Your task to perform on an android device: toggle pop-ups in chrome Image 0: 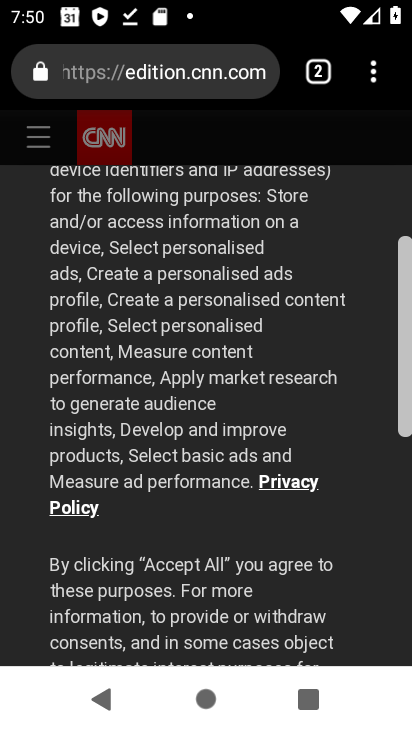
Step 0: press home button
Your task to perform on an android device: toggle pop-ups in chrome Image 1: 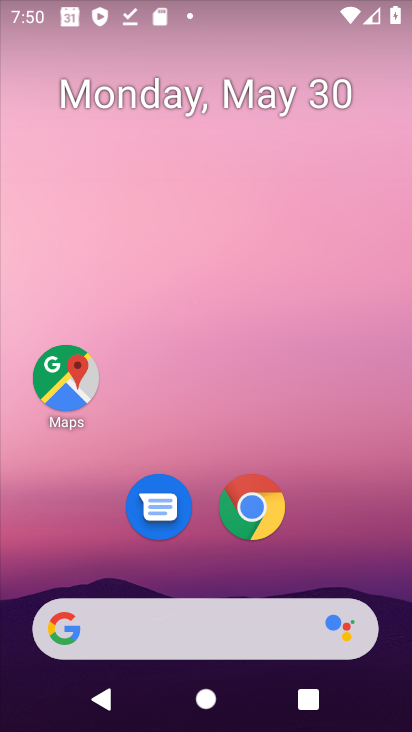
Step 1: drag from (362, 552) to (329, 176)
Your task to perform on an android device: toggle pop-ups in chrome Image 2: 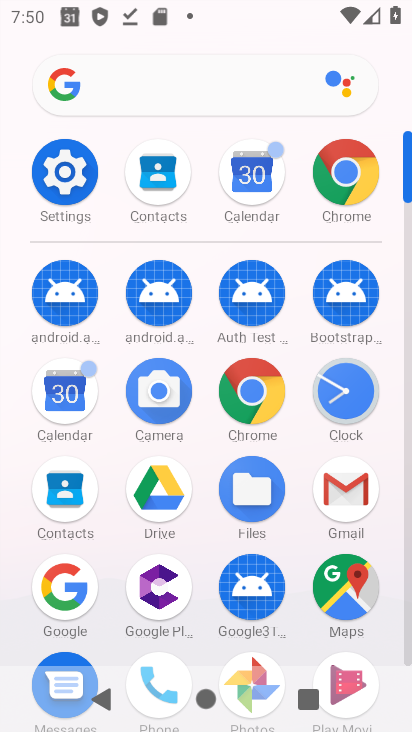
Step 2: click (241, 399)
Your task to perform on an android device: toggle pop-ups in chrome Image 3: 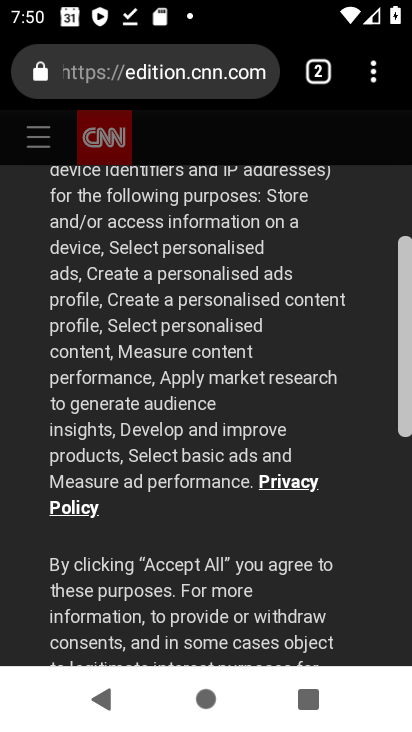
Step 3: drag from (385, 78) to (114, 497)
Your task to perform on an android device: toggle pop-ups in chrome Image 4: 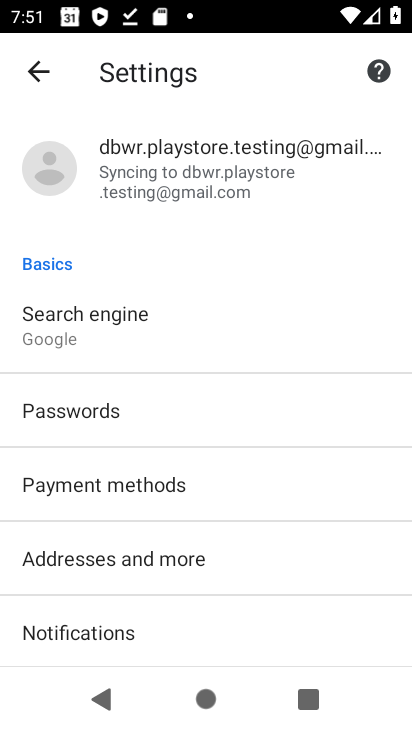
Step 4: drag from (216, 530) to (226, 235)
Your task to perform on an android device: toggle pop-ups in chrome Image 5: 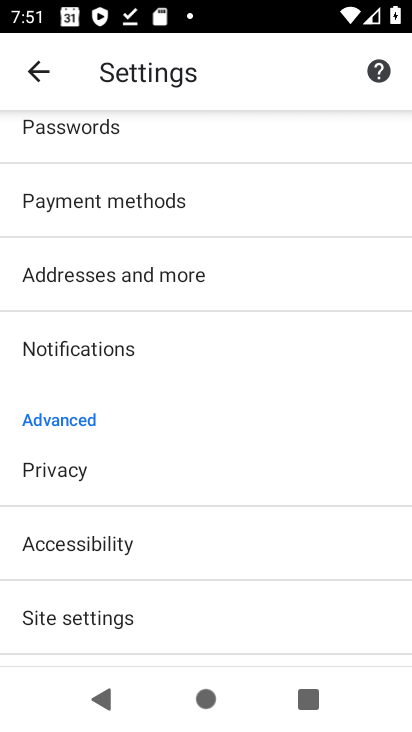
Step 5: click (109, 604)
Your task to perform on an android device: toggle pop-ups in chrome Image 6: 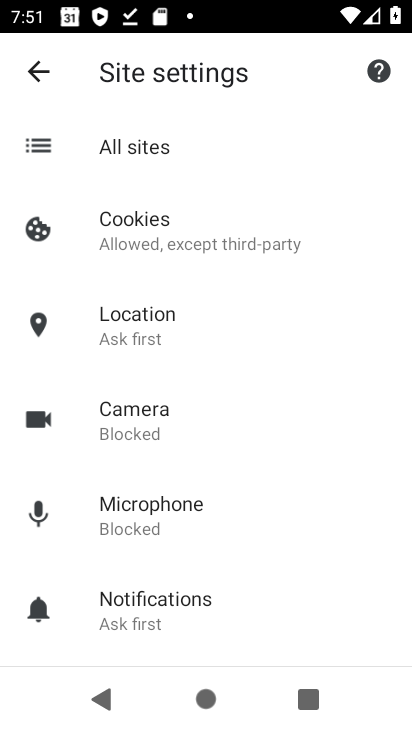
Step 6: drag from (266, 593) to (276, 280)
Your task to perform on an android device: toggle pop-ups in chrome Image 7: 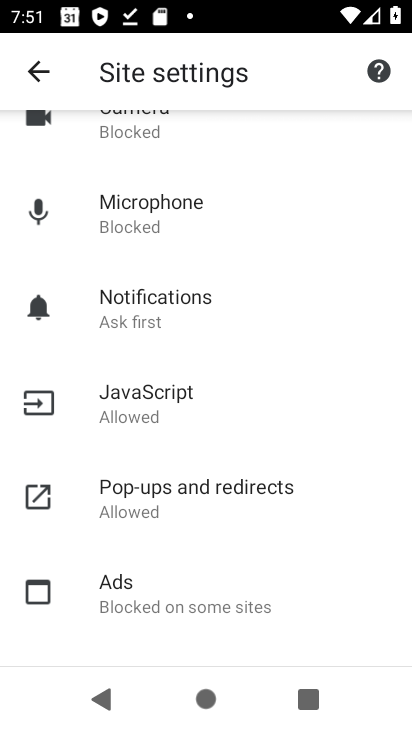
Step 7: click (241, 508)
Your task to perform on an android device: toggle pop-ups in chrome Image 8: 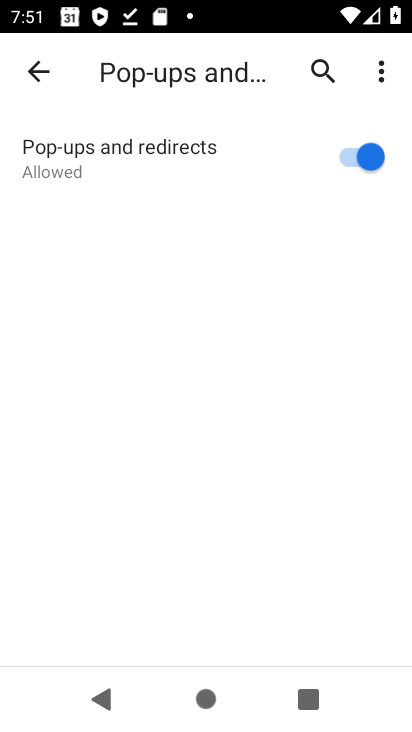
Step 8: task complete